Your task to perform on an android device: toggle notification dots Image 0: 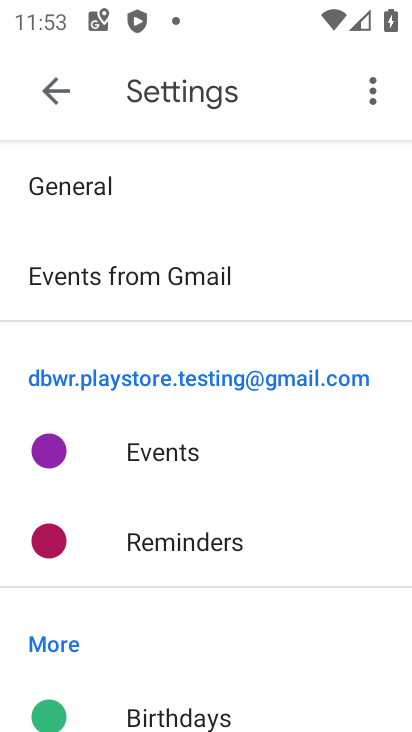
Step 0: press home button
Your task to perform on an android device: toggle notification dots Image 1: 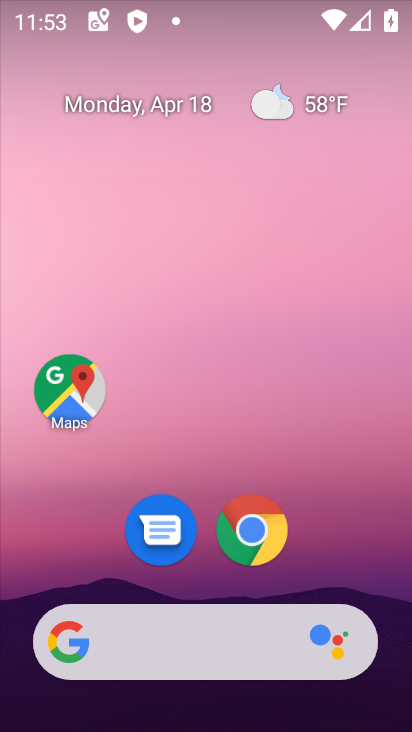
Step 1: drag from (209, 539) to (198, 11)
Your task to perform on an android device: toggle notification dots Image 2: 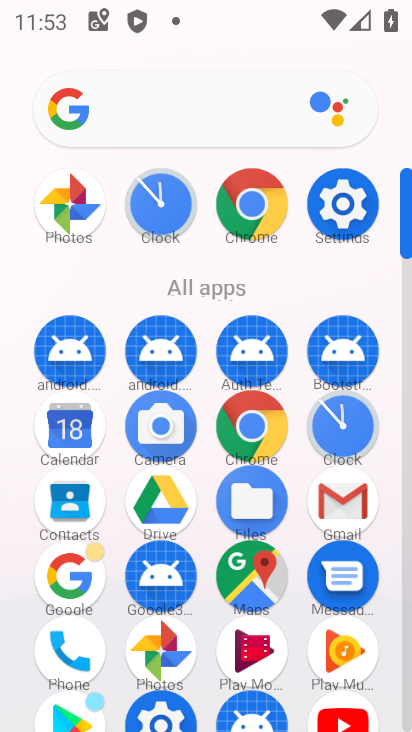
Step 2: click (343, 205)
Your task to perform on an android device: toggle notification dots Image 3: 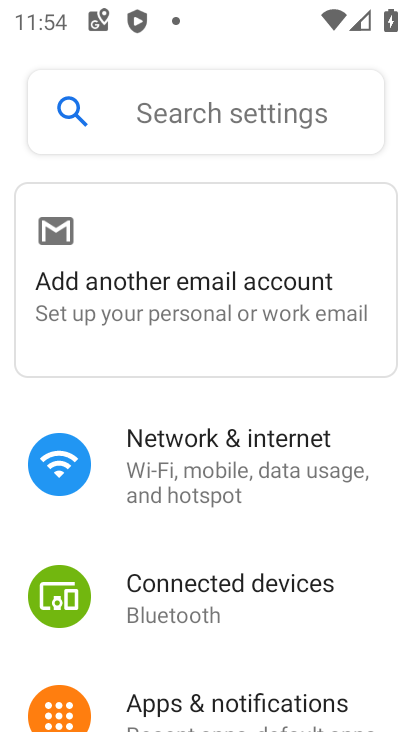
Step 3: drag from (252, 638) to (276, 351)
Your task to perform on an android device: toggle notification dots Image 4: 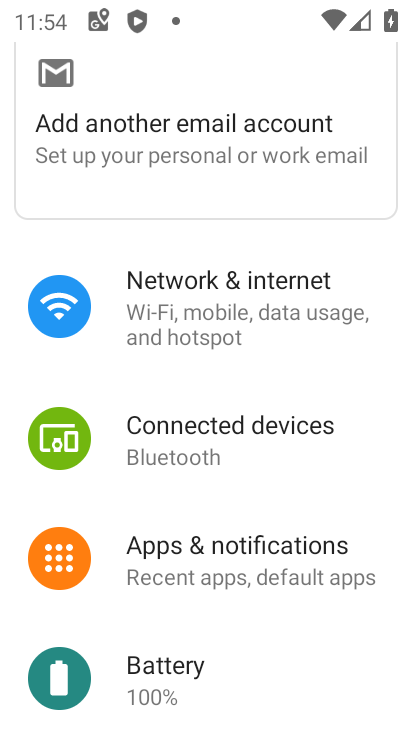
Step 4: click (259, 594)
Your task to perform on an android device: toggle notification dots Image 5: 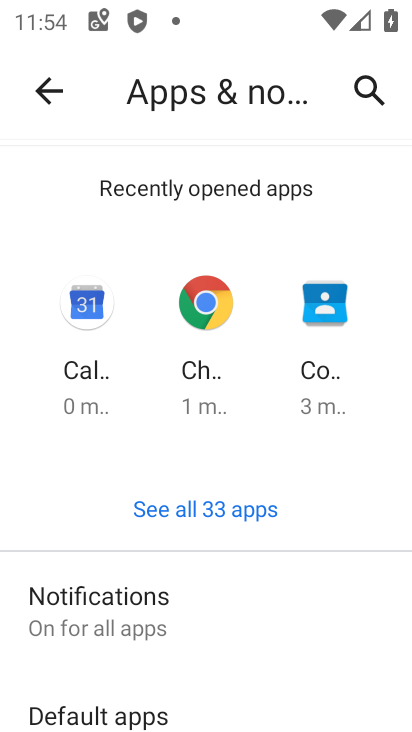
Step 5: click (157, 606)
Your task to perform on an android device: toggle notification dots Image 6: 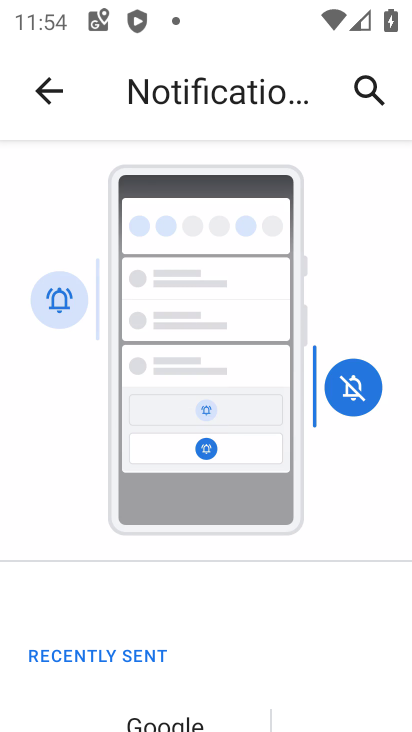
Step 6: drag from (245, 642) to (226, 255)
Your task to perform on an android device: toggle notification dots Image 7: 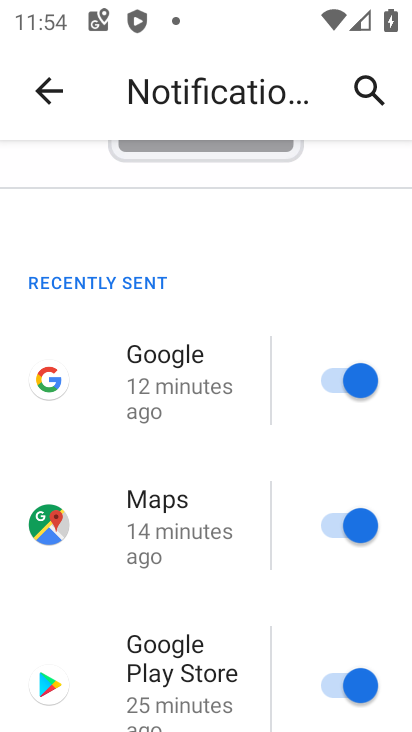
Step 7: drag from (249, 579) to (274, 236)
Your task to perform on an android device: toggle notification dots Image 8: 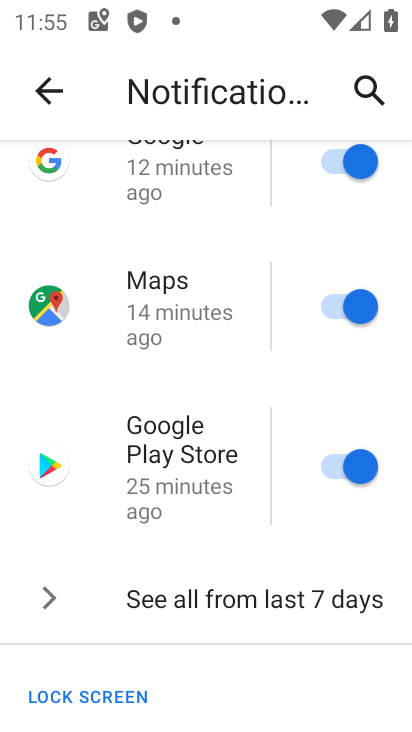
Step 8: drag from (236, 659) to (269, 308)
Your task to perform on an android device: toggle notification dots Image 9: 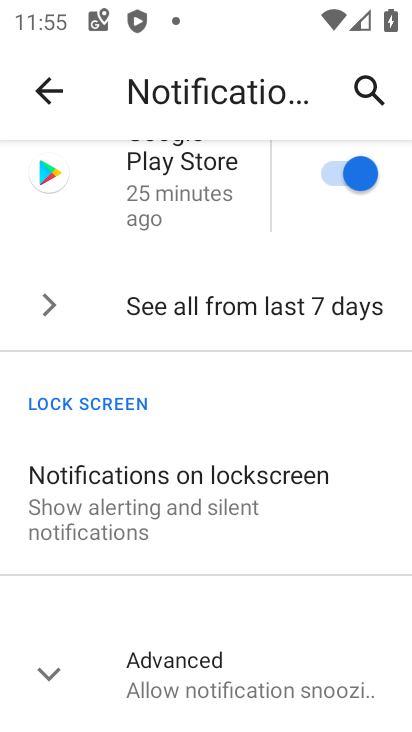
Step 9: click (189, 493)
Your task to perform on an android device: toggle notification dots Image 10: 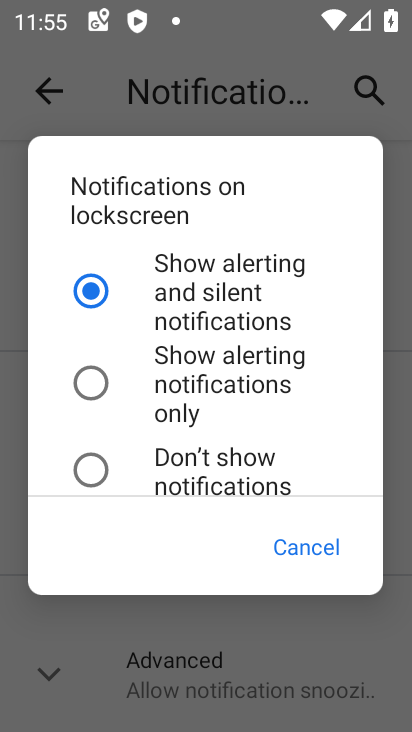
Step 10: click (313, 551)
Your task to perform on an android device: toggle notification dots Image 11: 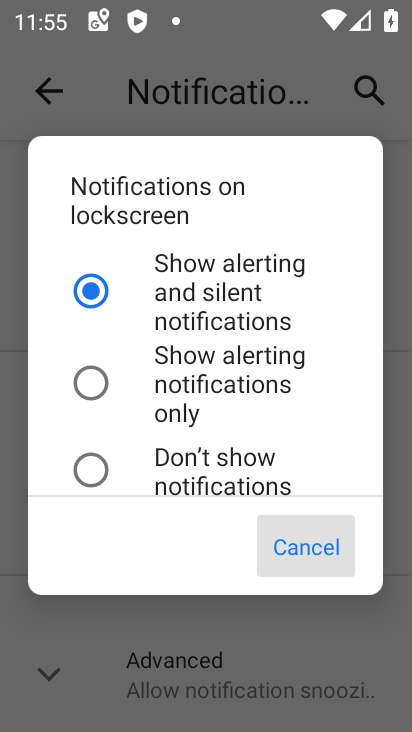
Step 11: click (163, 686)
Your task to perform on an android device: toggle notification dots Image 12: 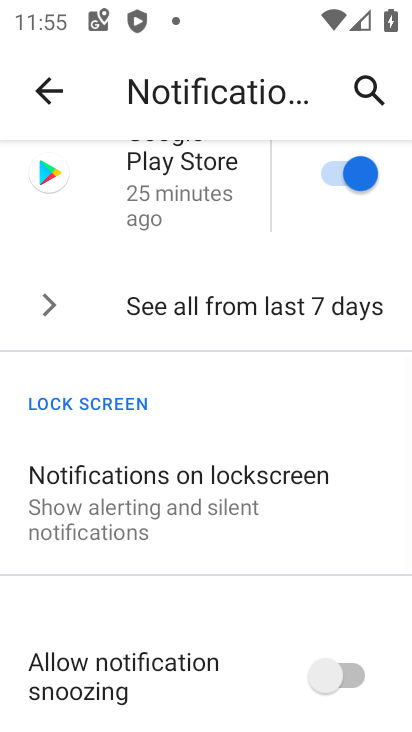
Step 12: drag from (185, 701) to (269, 278)
Your task to perform on an android device: toggle notification dots Image 13: 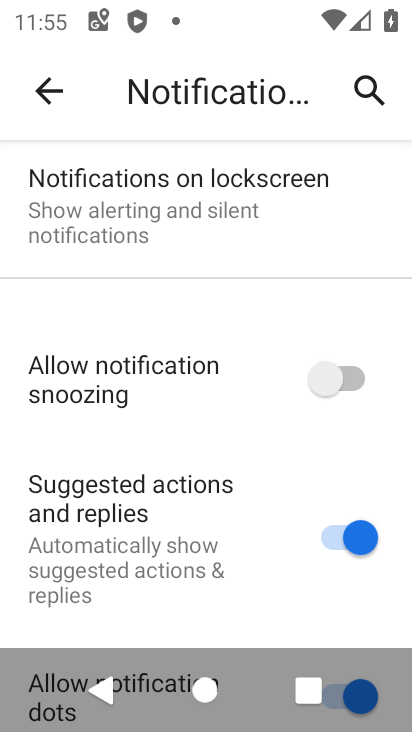
Step 13: drag from (290, 518) to (329, 284)
Your task to perform on an android device: toggle notification dots Image 14: 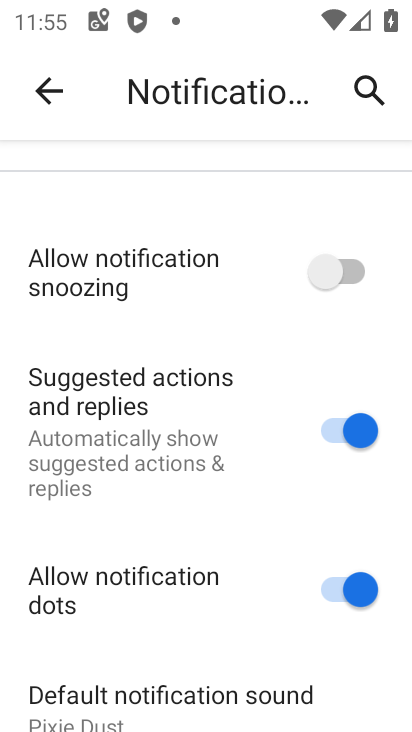
Step 14: click (338, 589)
Your task to perform on an android device: toggle notification dots Image 15: 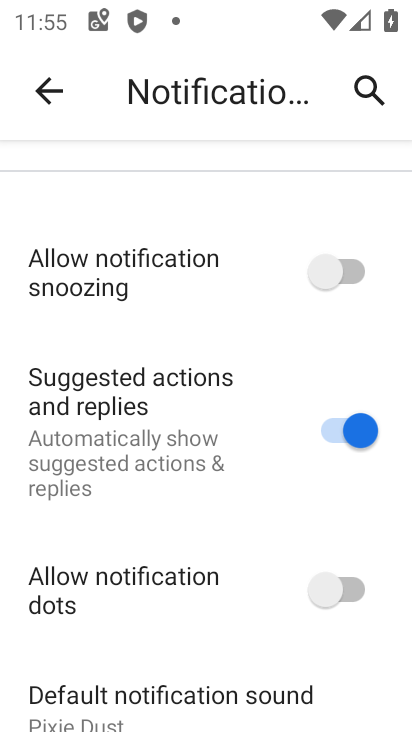
Step 15: task complete